Your task to perform on an android device: Is it going to rain today? Image 0: 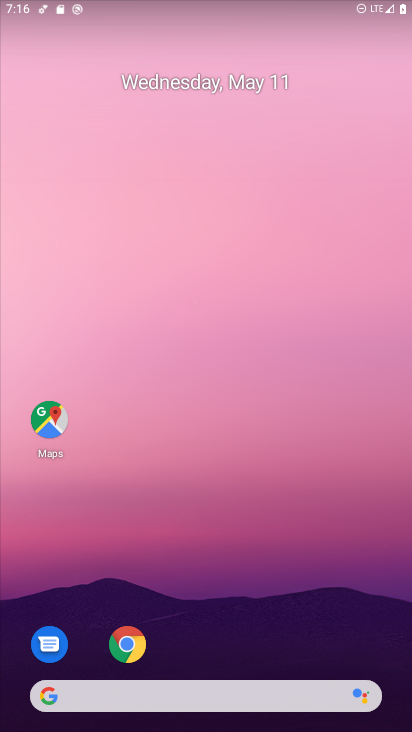
Step 0: click (187, 696)
Your task to perform on an android device: Is it going to rain today? Image 1: 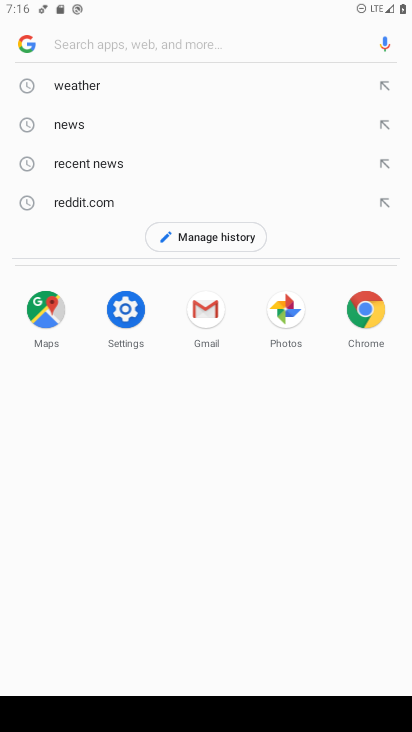
Step 1: click (85, 85)
Your task to perform on an android device: Is it going to rain today? Image 2: 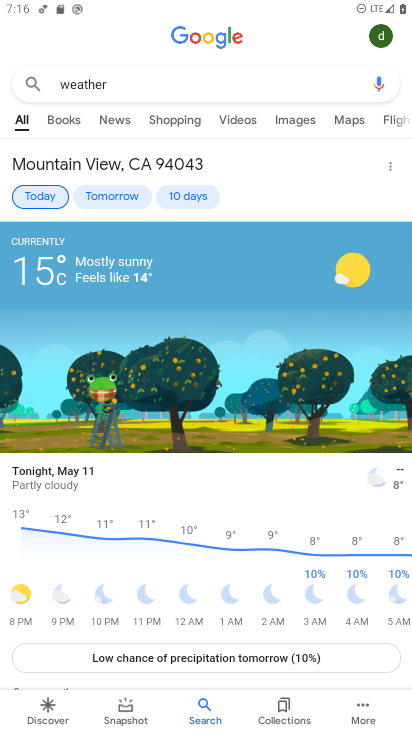
Step 2: task complete